Your task to perform on an android device: open a new tab in the chrome app Image 0: 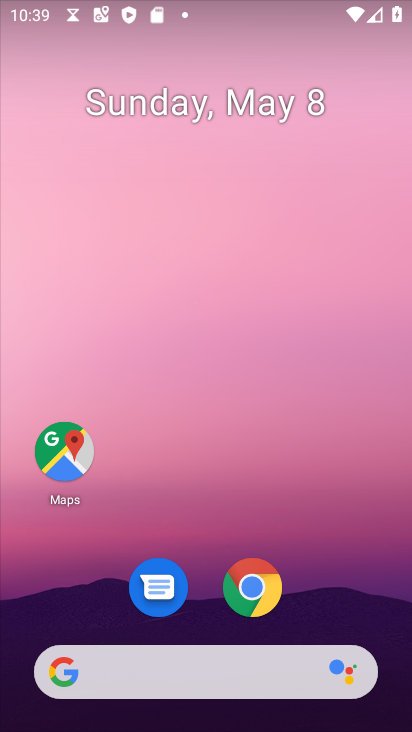
Step 0: click (250, 579)
Your task to perform on an android device: open a new tab in the chrome app Image 1: 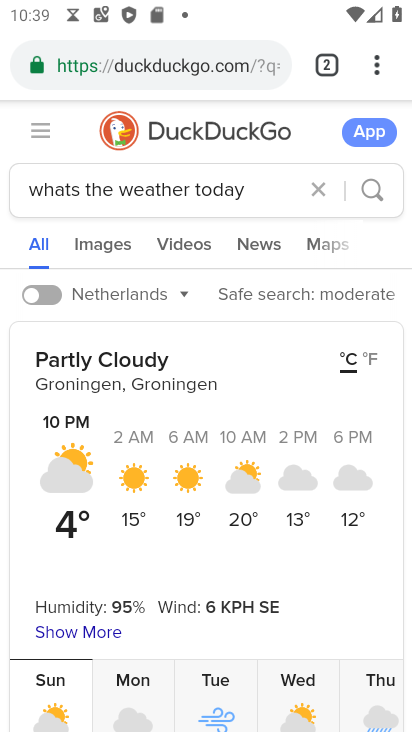
Step 1: task complete